Your task to perform on an android device: change the clock display to show seconds Image 0: 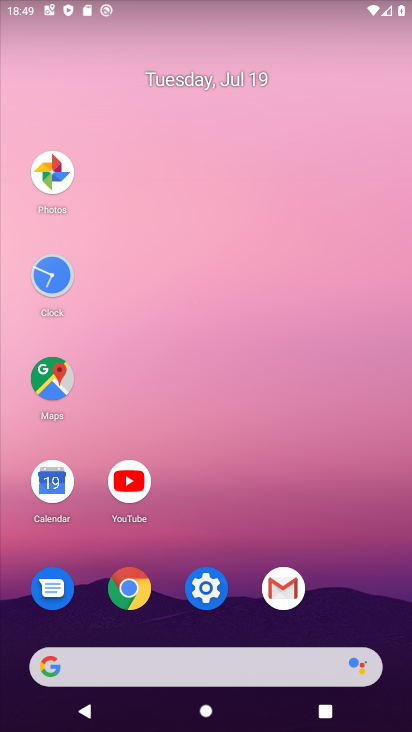
Step 0: click (53, 276)
Your task to perform on an android device: change the clock display to show seconds Image 1: 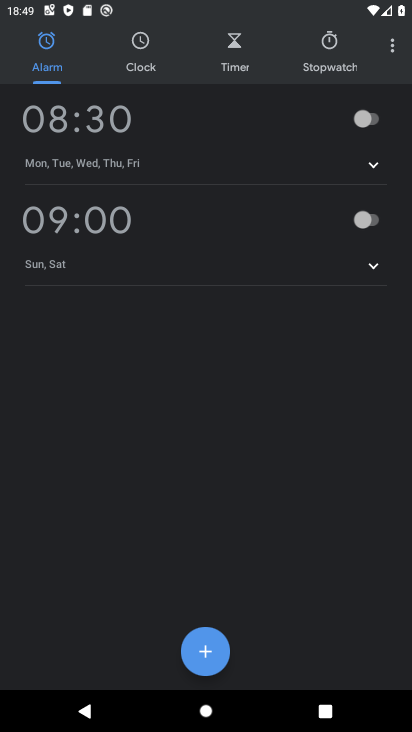
Step 1: click (392, 42)
Your task to perform on an android device: change the clock display to show seconds Image 2: 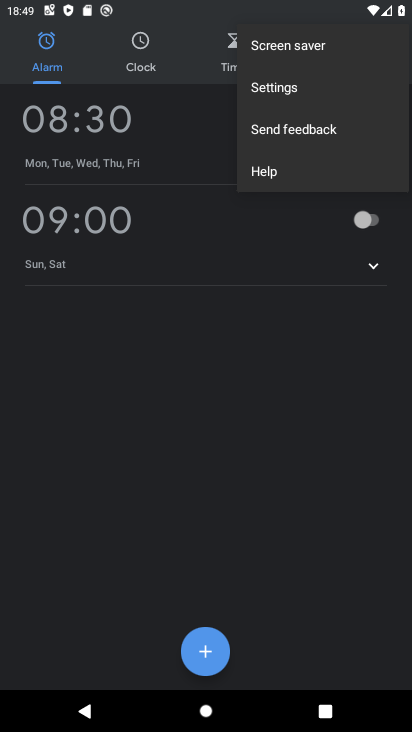
Step 2: click (280, 80)
Your task to perform on an android device: change the clock display to show seconds Image 3: 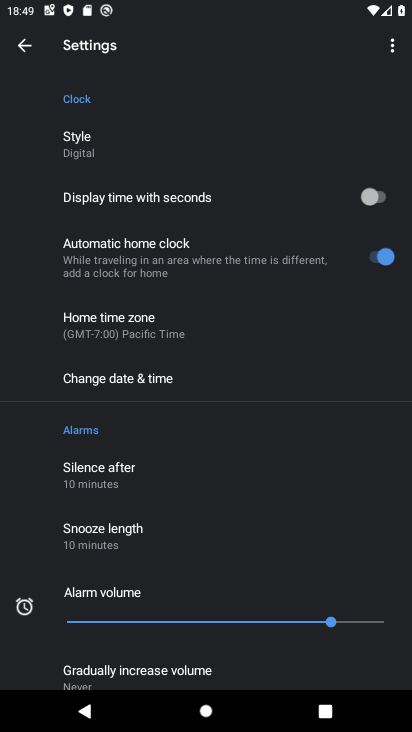
Step 3: click (371, 196)
Your task to perform on an android device: change the clock display to show seconds Image 4: 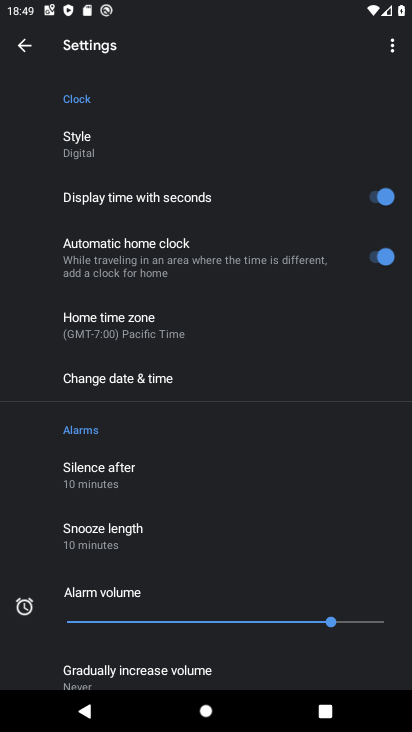
Step 4: task complete